Your task to perform on an android device: change your default location settings in chrome Image 0: 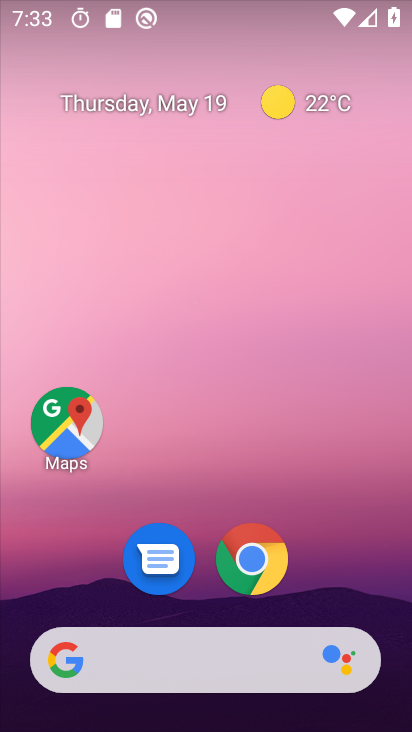
Step 0: click (247, 555)
Your task to perform on an android device: change your default location settings in chrome Image 1: 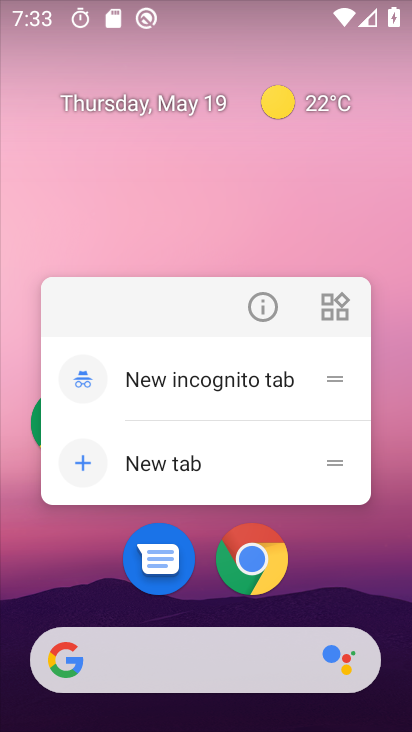
Step 1: click (253, 573)
Your task to perform on an android device: change your default location settings in chrome Image 2: 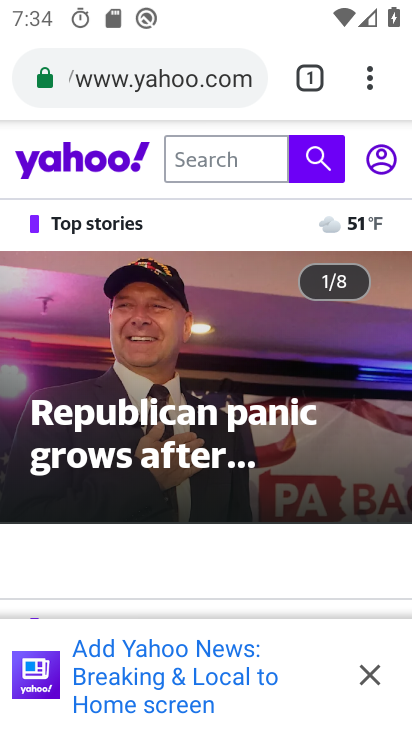
Step 2: click (358, 79)
Your task to perform on an android device: change your default location settings in chrome Image 3: 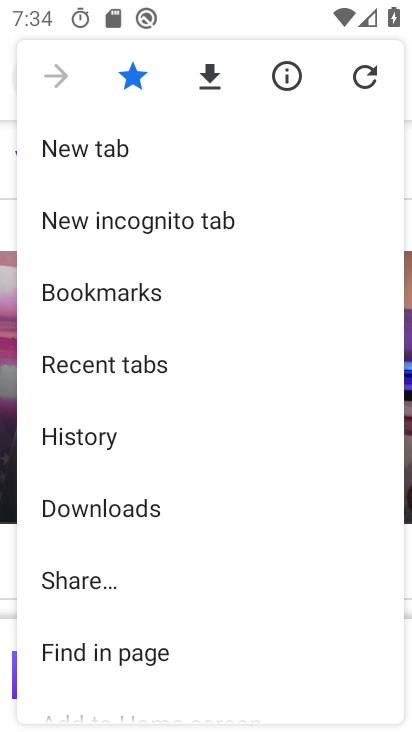
Step 3: drag from (173, 631) to (172, 161)
Your task to perform on an android device: change your default location settings in chrome Image 4: 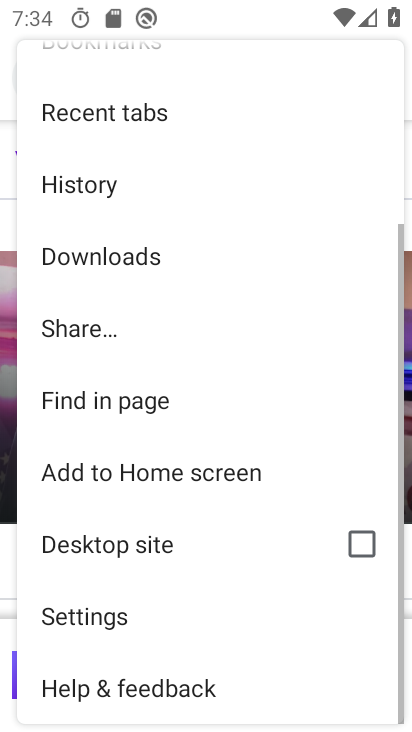
Step 4: click (152, 619)
Your task to perform on an android device: change your default location settings in chrome Image 5: 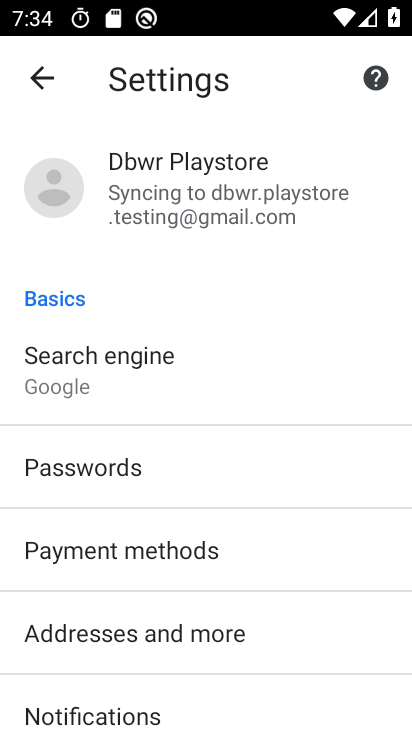
Step 5: drag from (66, 646) to (79, 155)
Your task to perform on an android device: change your default location settings in chrome Image 6: 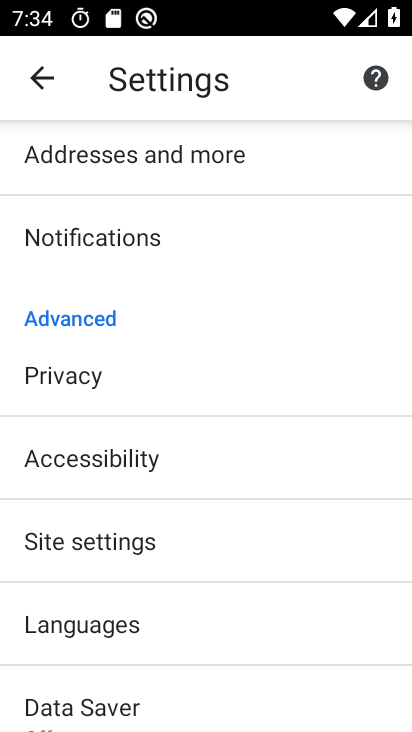
Step 6: click (130, 554)
Your task to perform on an android device: change your default location settings in chrome Image 7: 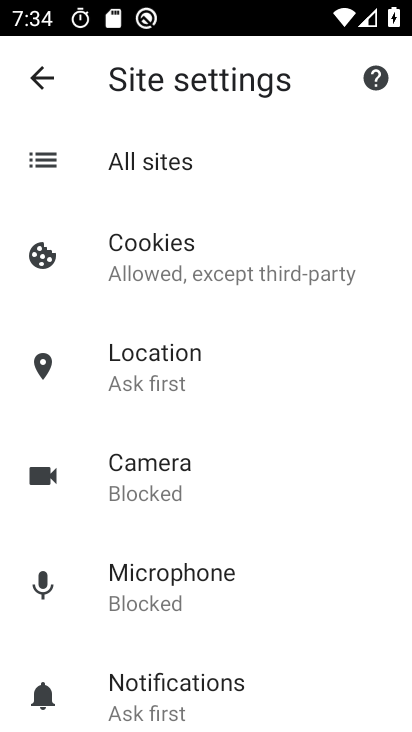
Step 7: click (204, 365)
Your task to perform on an android device: change your default location settings in chrome Image 8: 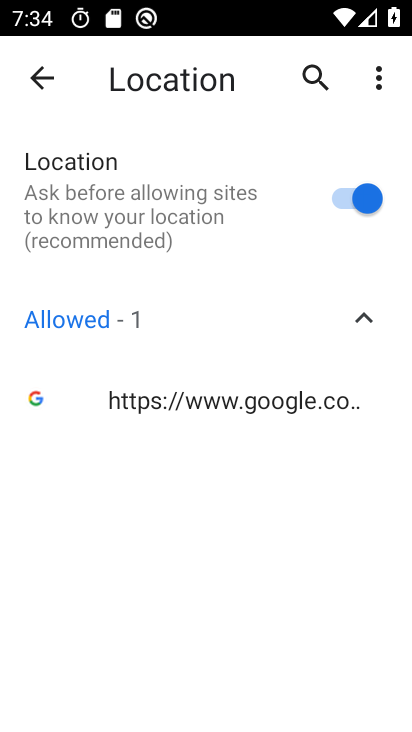
Step 8: click (338, 194)
Your task to perform on an android device: change your default location settings in chrome Image 9: 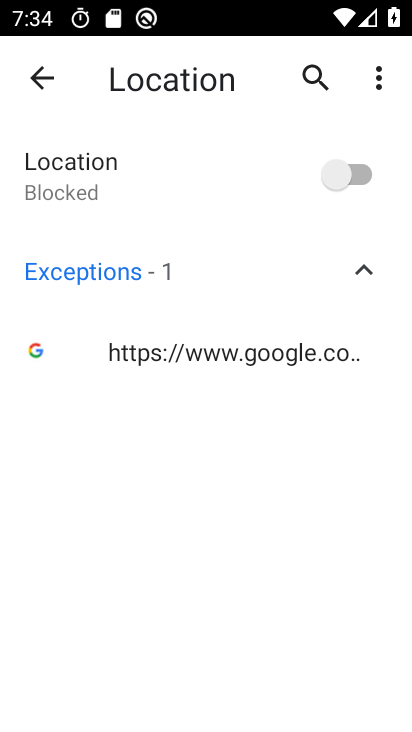
Step 9: task complete